Your task to perform on an android device: What is the news today? Image 0: 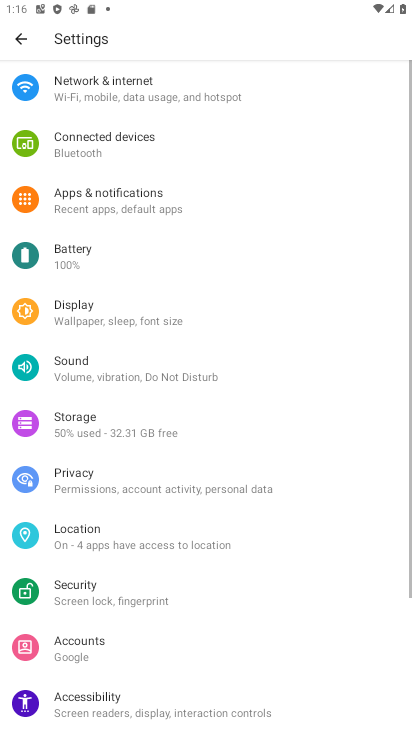
Step 0: press home button
Your task to perform on an android device: What is the news today? Image 1: 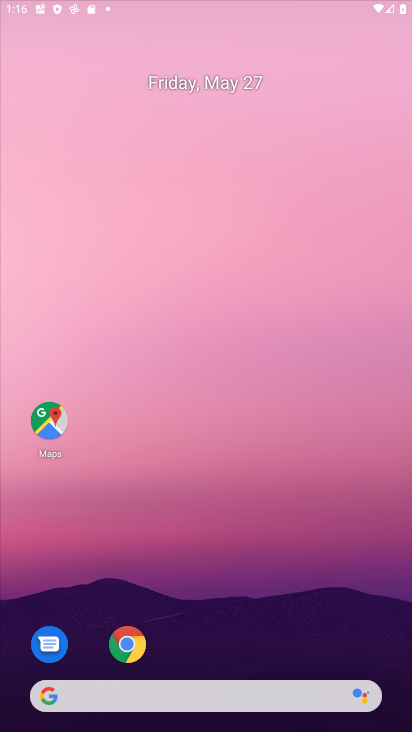
Step 1: drag from (325, 637) to (290, 73)
Your task to perform on an android device: What is the news today? Image 2: 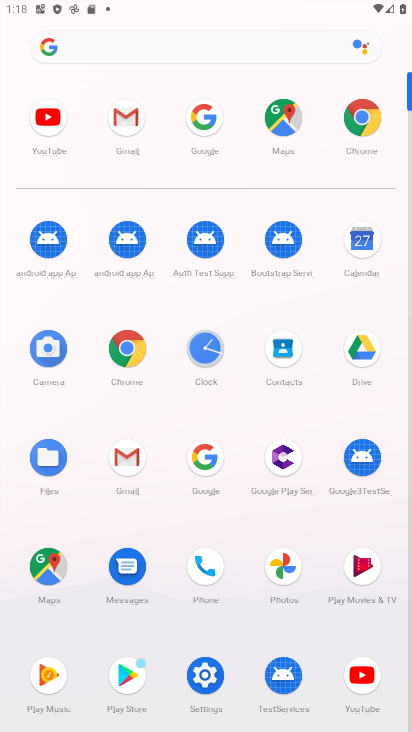
Step 2: click (196, 467)
Your task to perform on an android device: What is the news today? Image 3: 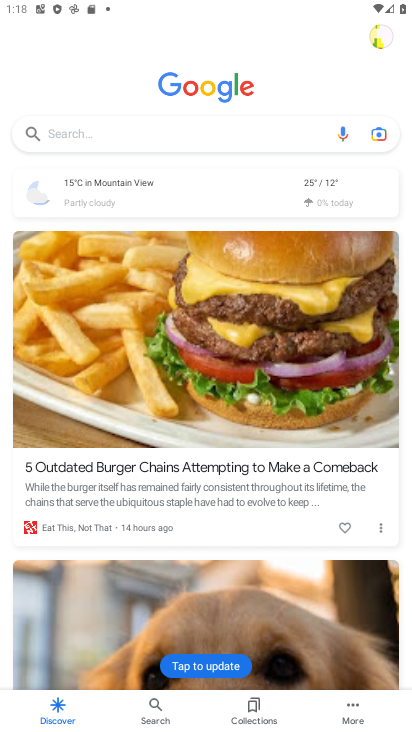
Step 3: click (138, 120)
Your task to perform on an android device: What is the news today? Image 4: 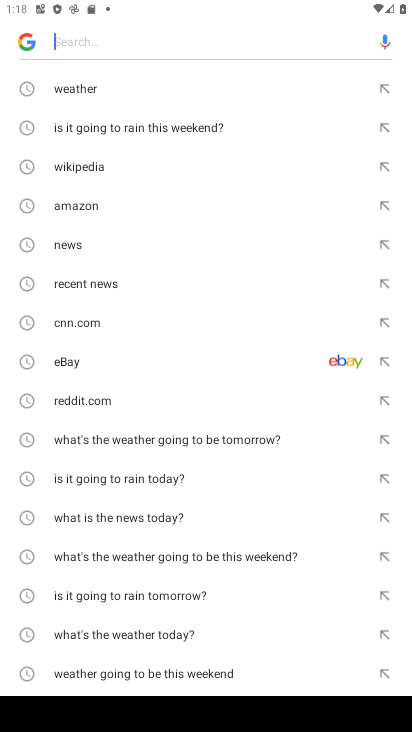
Step 4: click (184, 519)
Your task to perform on an android device: What is the news today? Image 5: 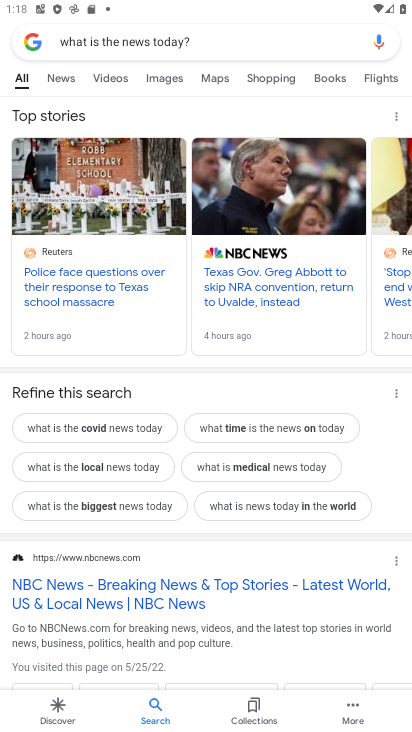
Step 5: task complete